Your task to perform on an android device: Is it going to rain today? Image 0: 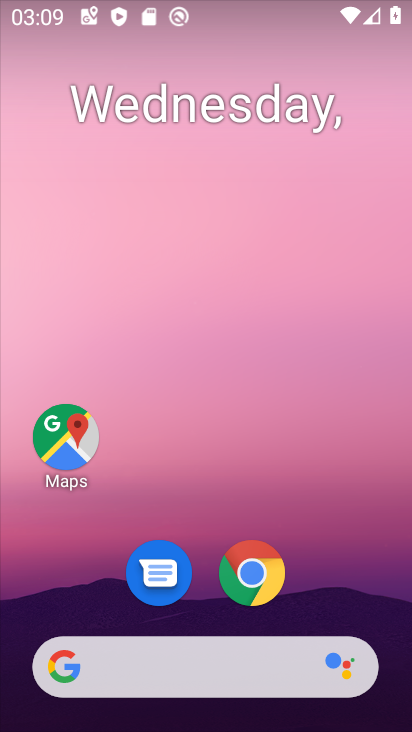
Step 0: drag from (342, 601) to (260, 194)
Your task to perform on an android device: Is it going to rain today? Image 1: 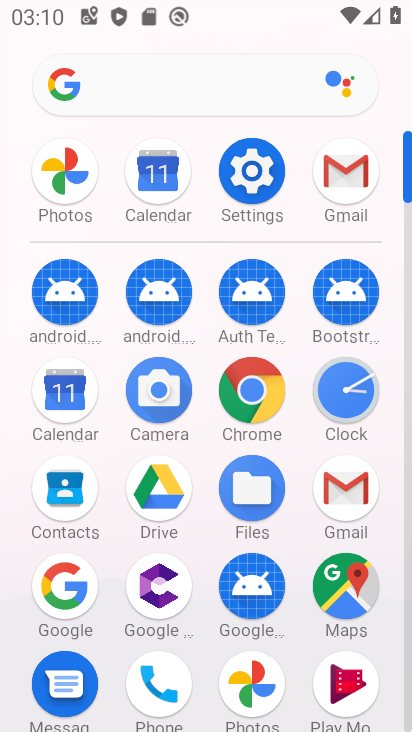
Step 1: click (60, 585)
Your task to perform on an android device: Is it going to rain today? Image 2: 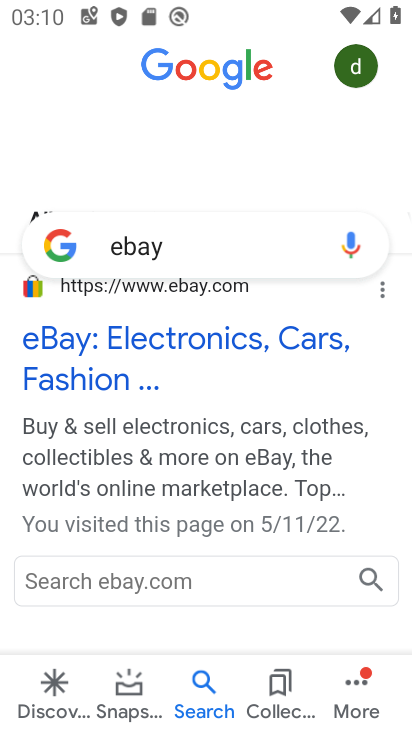
Step 2: click (217, 242)
Your task to perform on an android device: Is it going to rain today? Image 3: 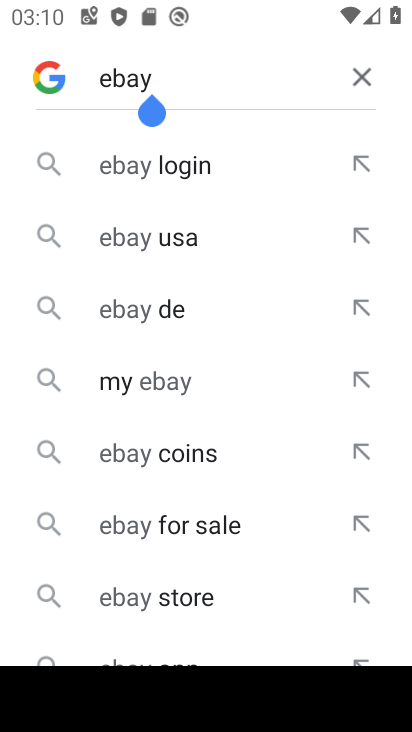
Step 3: click (365, 78)
Your task to perform on an android device: Is it going to rain today? Image 4: 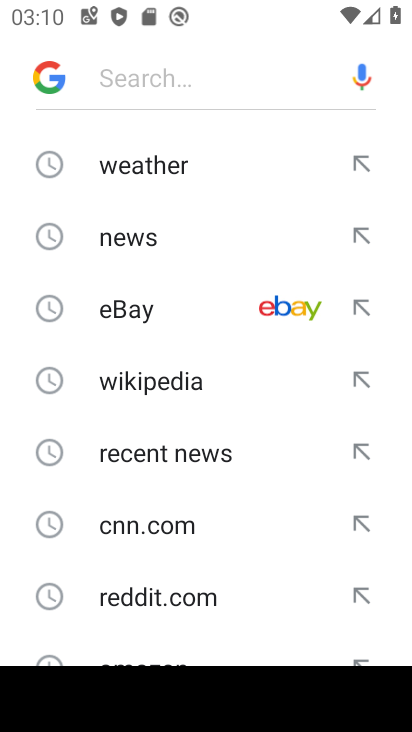
Step 4: click (165, 159)
Your task to perform on an android device: Is it going to rain today? Image 5: 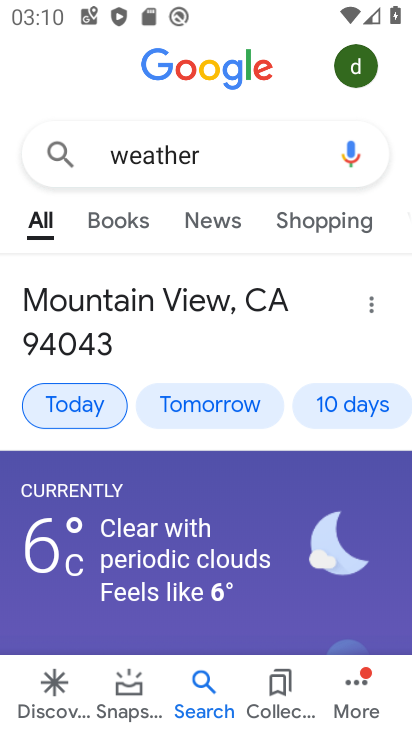
Step 5: task complete